Your task to perform on an android device: Open Youtube and go to the subscriptions tab Image 0: 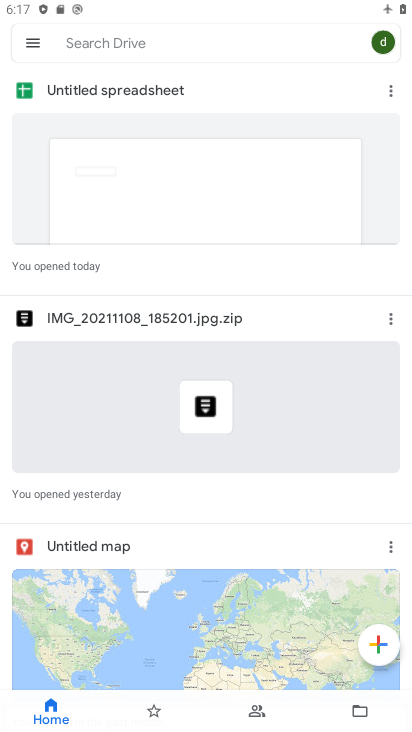
Step 0: press home button
Your task to perform on an android device: Open Youtube and go to the subscriptions tab Image 1: 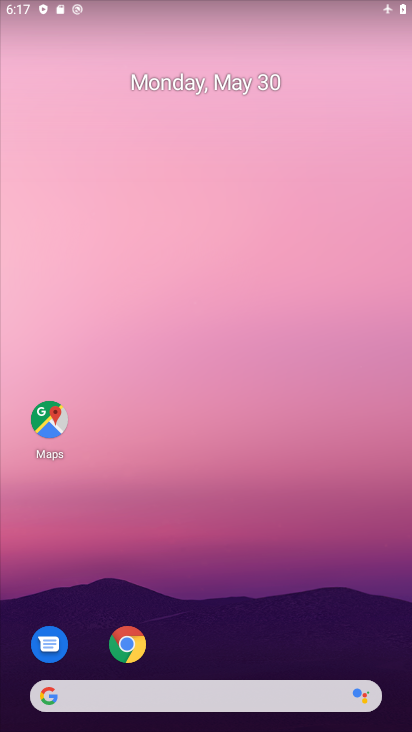
Step 1: drag from (202, 634) to (202, 163)
Your task to perform on an android device: Open Youtube and go to the subscriptions tab Image 2: 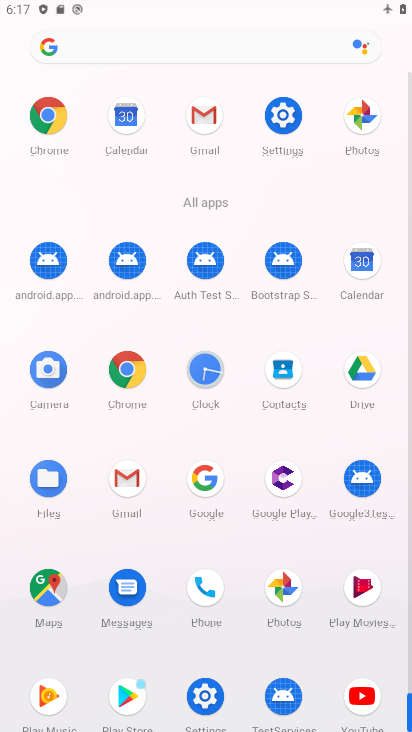
Step 2: click (352, 702)
Your task to perform on an android device: Open Youtube and go to the subscriptions tab Image 3: 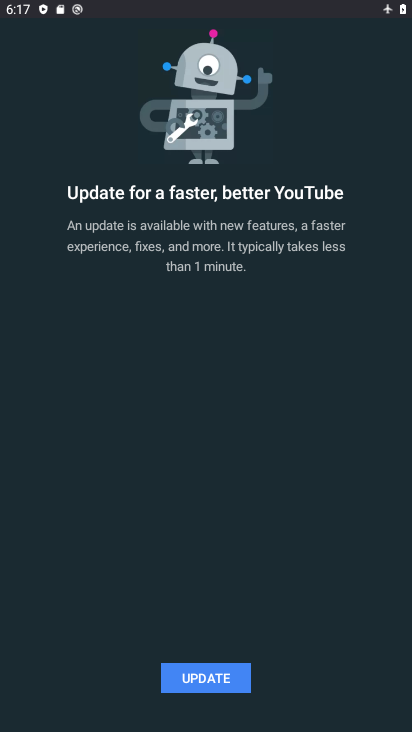
Step 3: click (221, 679)
Your task to perform on an android device: Open Youtube and go to the subscriptions tab Image 4: 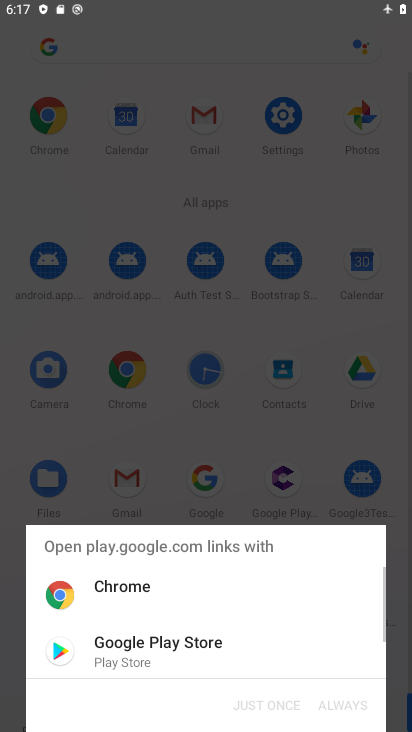
Step 4: click (179, 649)
Your task to perform on an android device: Open Youtube and go to the subscriptions tab Image 5: 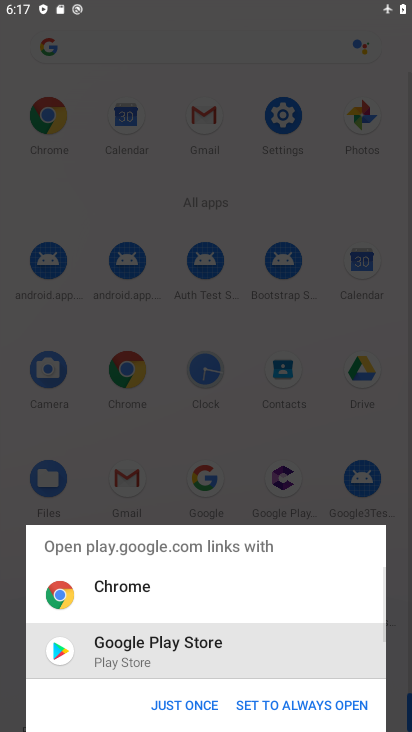
Step 5: click (280, 713)
Your task to perform on an android device: Open Youtube and go to the subscriptions tab Image 6: 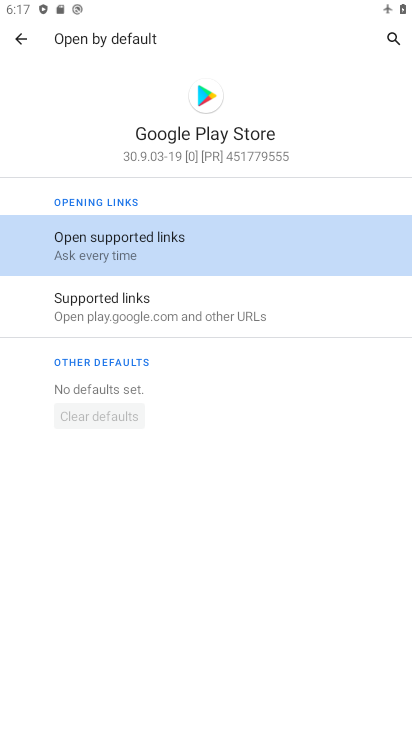
Step 6: click (159, 248)
Your task to perform on an android device: Open Youtube and go to the subscriptions tab Image 7: 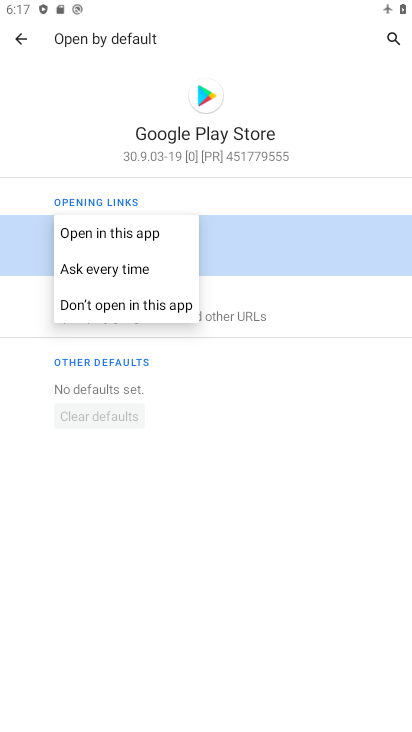
Step 7: click (117, 238)
Your task to perform on an android device: Open Youtube and go to the subscriptions tab Image 8: 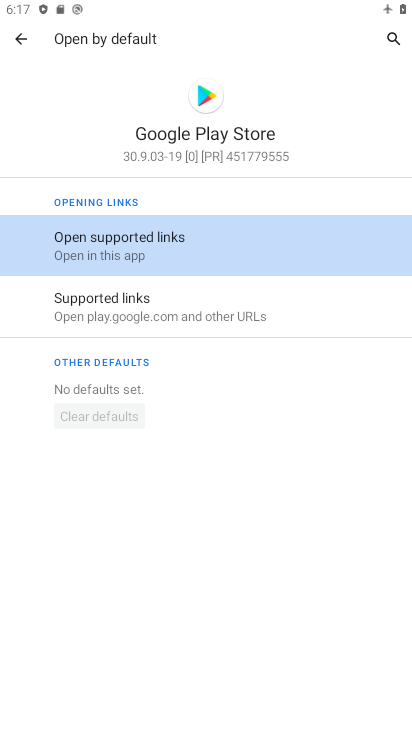
Step 8: click (19, 34)
Your task to perform on an android device: Open Youtube and go to the subscriptions tab Image 9: 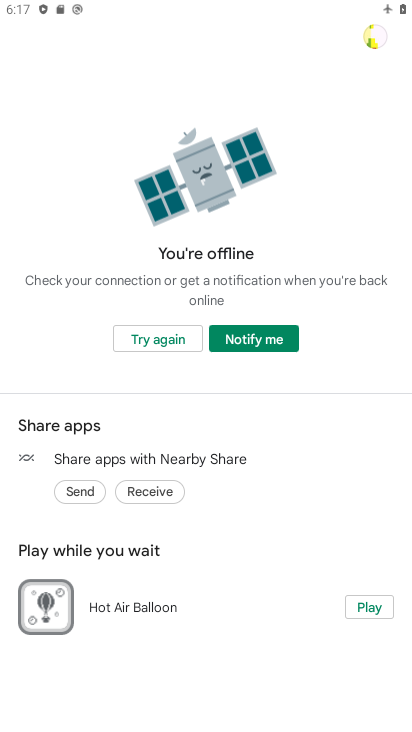
Step 9: task complete